Your task to perform on an android device: change timer sound Image 0: 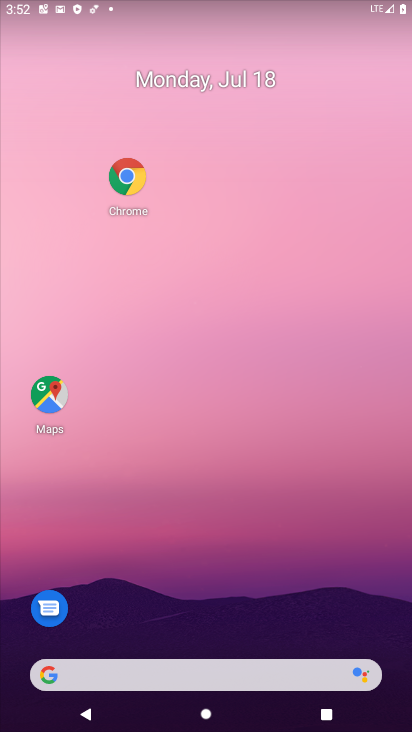
Step 0: press home button
Your task to perform on an android device: change timer sound Image 1: 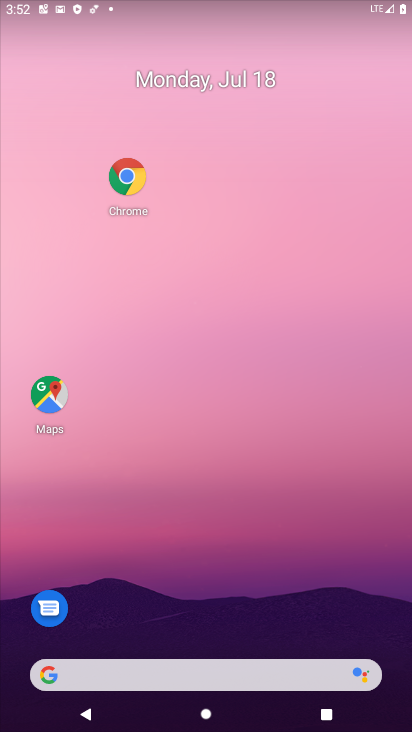
Step 1: drag from (255, 643) to (323, 92)
Your task to perform on an android device: change timer sound Image 2: 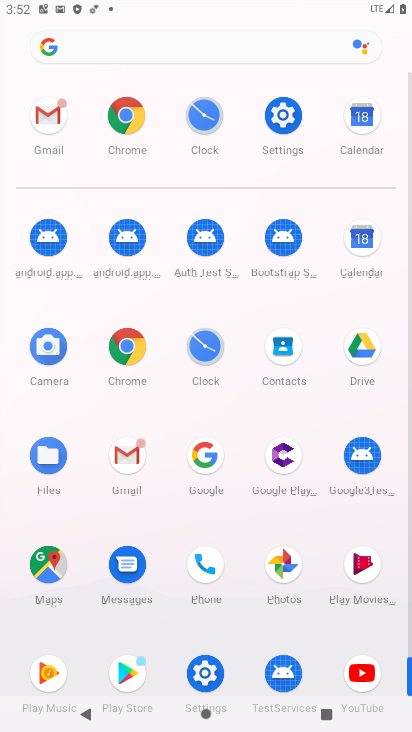
Step 2: click (211, 129)
Your task to perform on an android device: change timer sound Image 3: 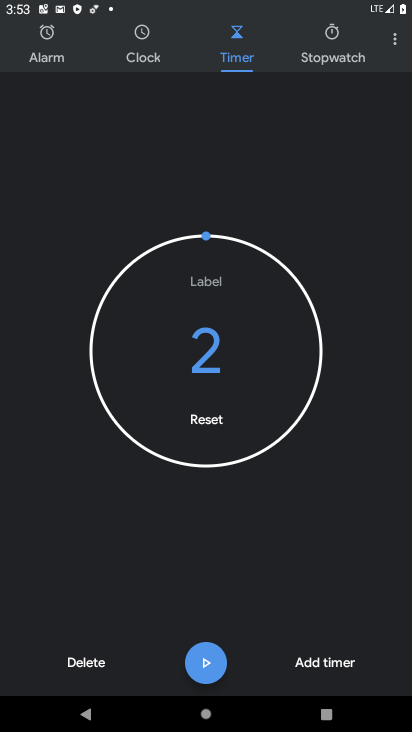
Step 3: click (396, 44)
Your task to perform on an android device: change timer sound Image 4: 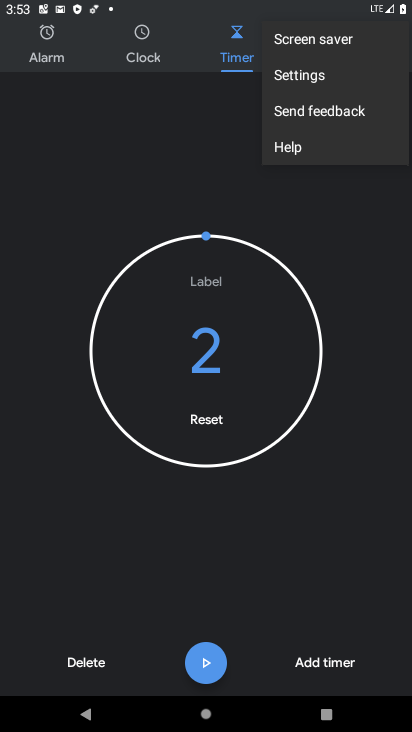
Step 4: click (315, 78)
Your task to perform on an android device: change timer sound Image 5: 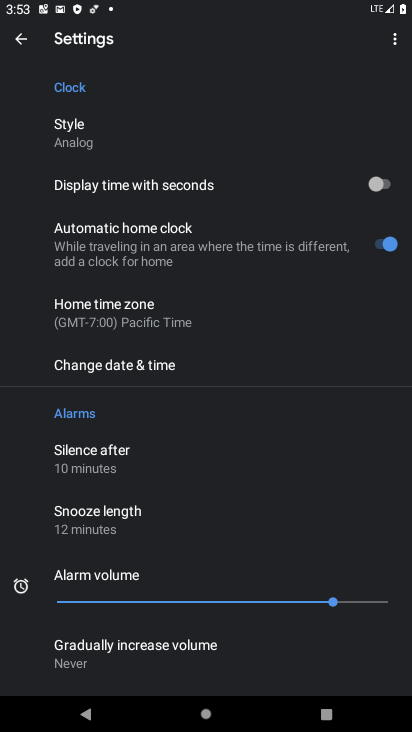
Step 5: drag from (155, 529) to (201, 266)
Your task to perform on an android device: change timer sound Image 6: 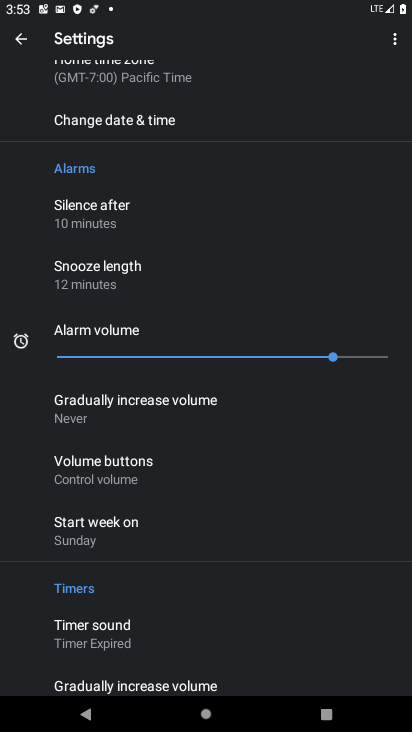
Step 6: drag from (158, 606) to (206, 357)
Your task to perform on an android device: change timer sound Image 7: 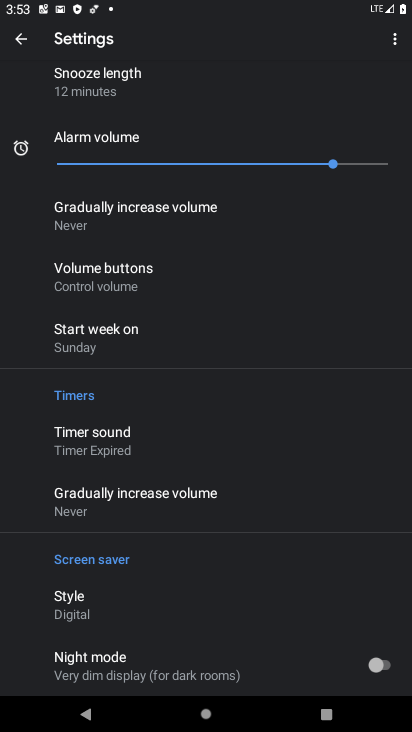
Step 7: click (124, 458)
Your task to perform on an android device: change timer sound Image 8: 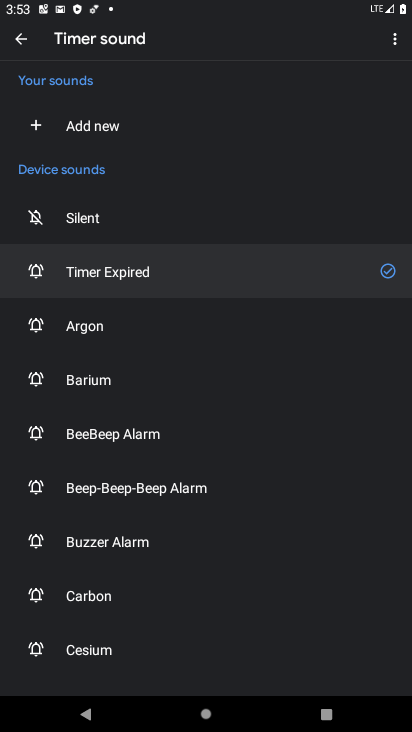
Step 8: click (86, 384)
Your task to perform on an android device: change timer sound Image 9: 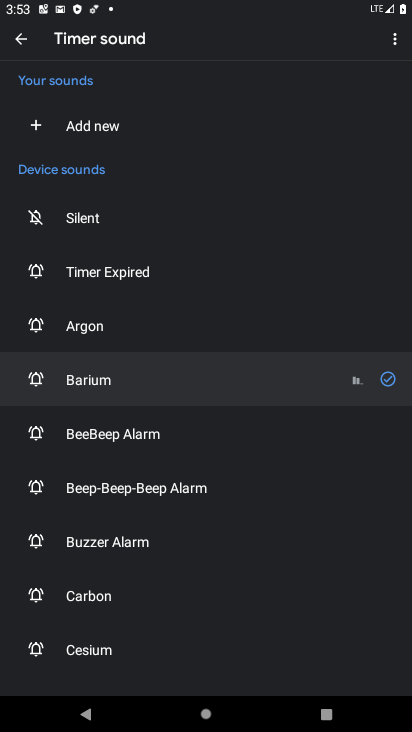
Step 9: task complete